Your task to perform on an android device: allow notifications from all sites in the chrome app Image 0: 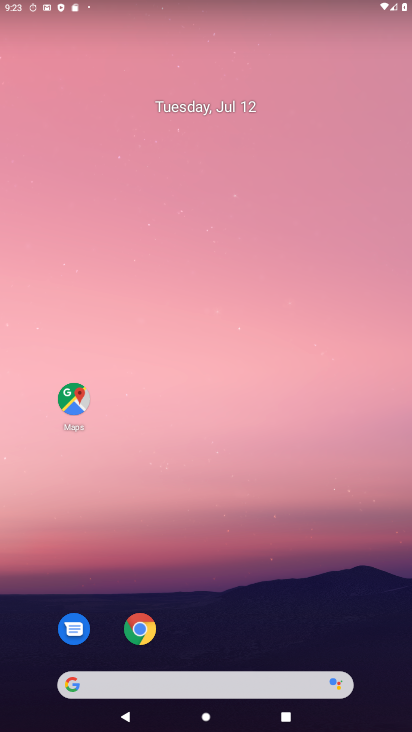
Step 0: drag from (295, 717) to (179, 222)
Your task to perform on an android device: allow notifications from all sites in the chrome app Image 1: 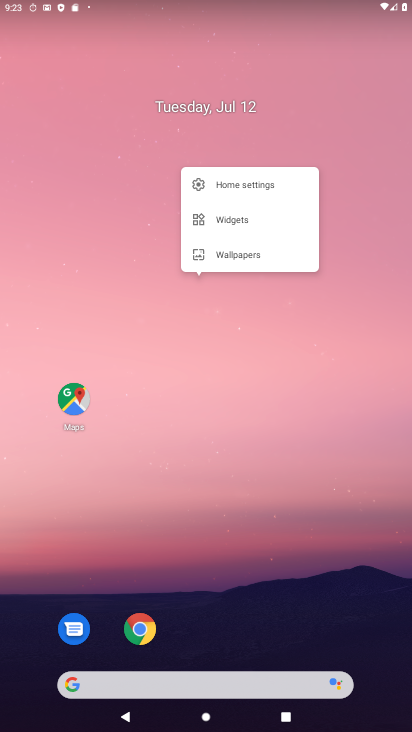
Step 1: drag from (234, 505) to (95, 231)
Your task to perform on an android device: allow notifications from all sites in the chrome app Image 2: 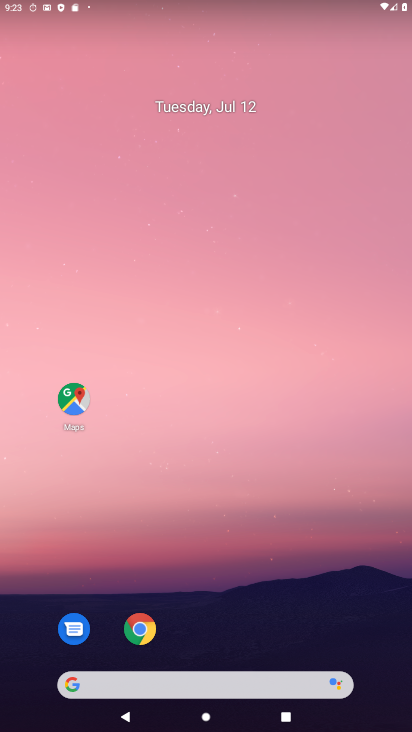
Step 2: click (92, 228)
Your task to perform on an android device: allow notifications from all sites in the chrome app Image 3: 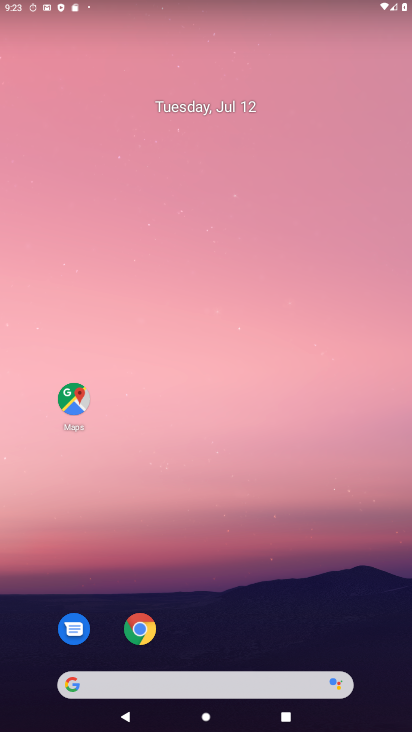
Step 3: drag from (322, 600) to (239, 334)
Your task to perform on an android device: allow notifications from all sites in the chrome app Image 4: 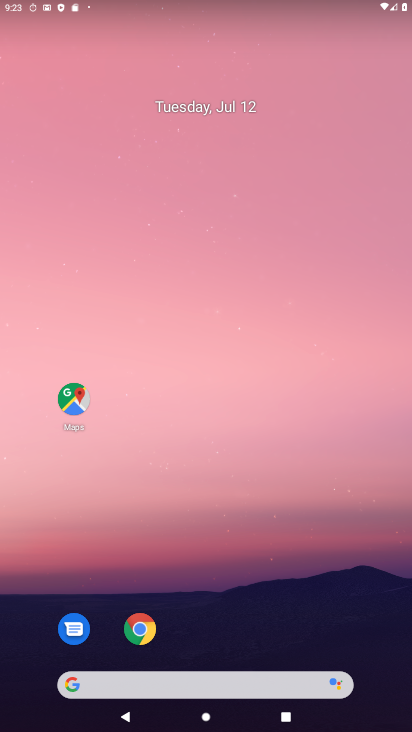
Step 4: drag from (238, 670) to (139, 304)
Your task to perform on an android device: allow notifications from all sites in the chrome app Image 5: 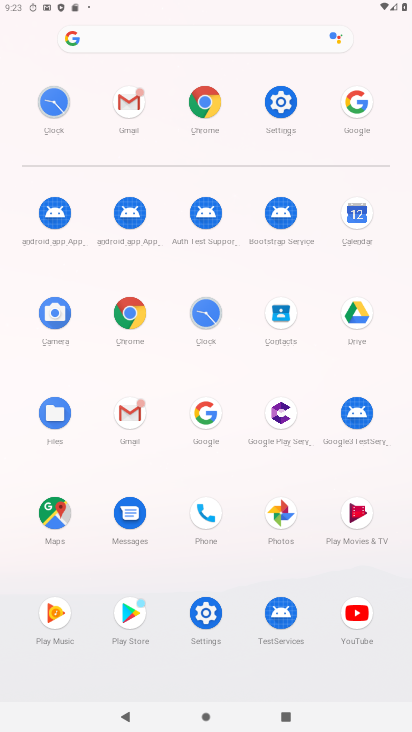
Step 5: click (204, 115)
Your task to perform on an android device: allow notifications from all sites in the chrome app Image 6: 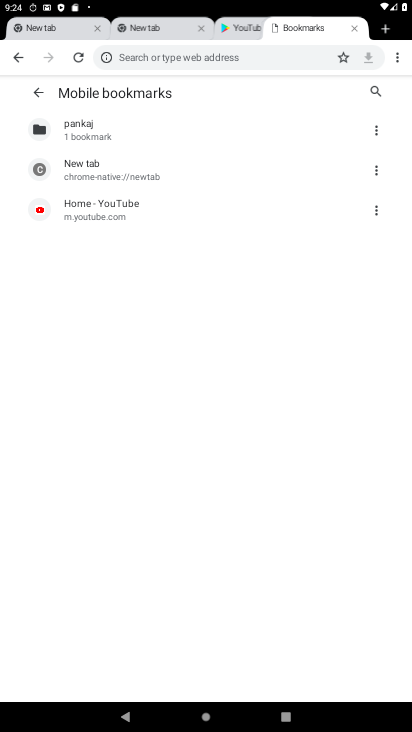
Step 6: drag from (403, 56) to (268, 259)
Your task to perform on an android device: allow notifications from all sites in the chrome app Image 7: 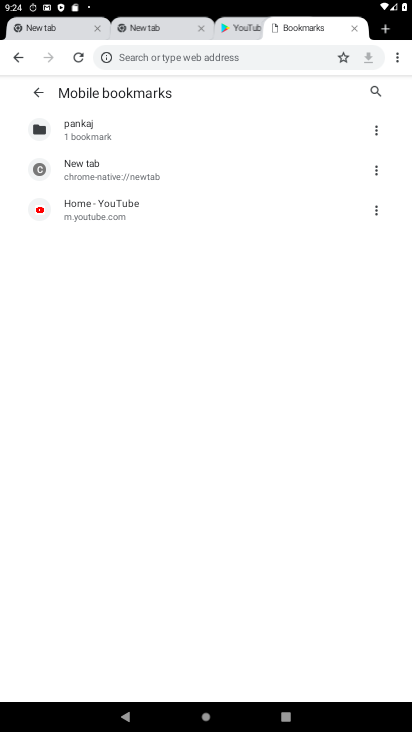
Step 7: click (273, 254)
Your task to perform on an android device: allow notifications from all sites in the chrome app Image 8: 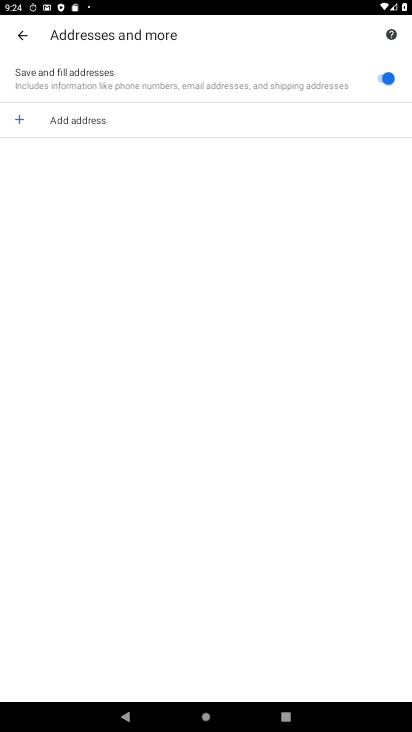
Step 8: click (17, 39)
Your task to perform on an android device: allow notifications from all sites in the chrome app Image 9: 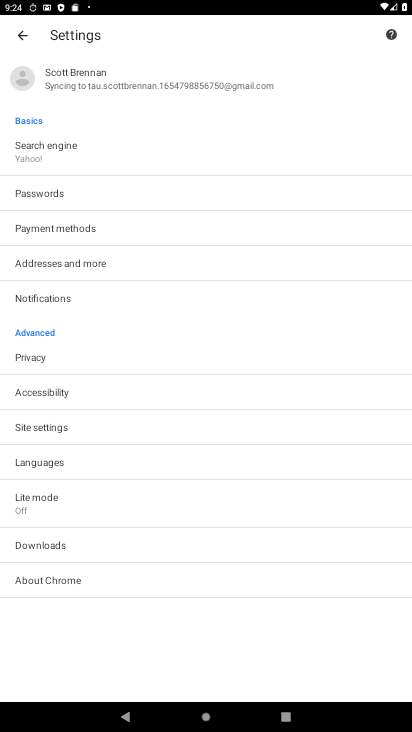
Step 9: click (42, 426)
Your task to perform on an android device: allow notifications from all sites in the chrome app Image 10: 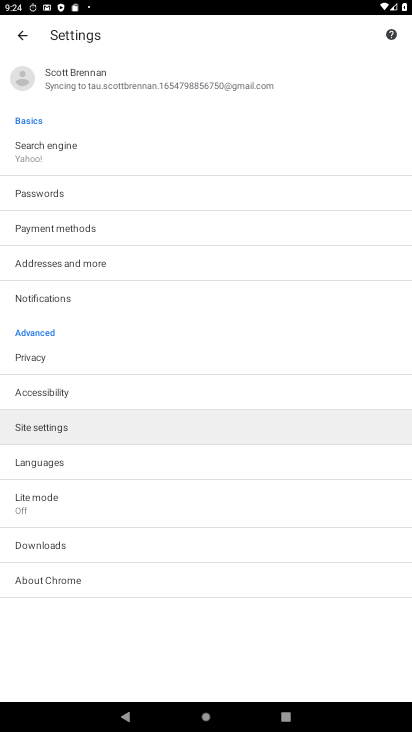
Step 10: click (42, 427)
Your task to perform on an android device: allow notifications from all sites in the chrome app Image 11: 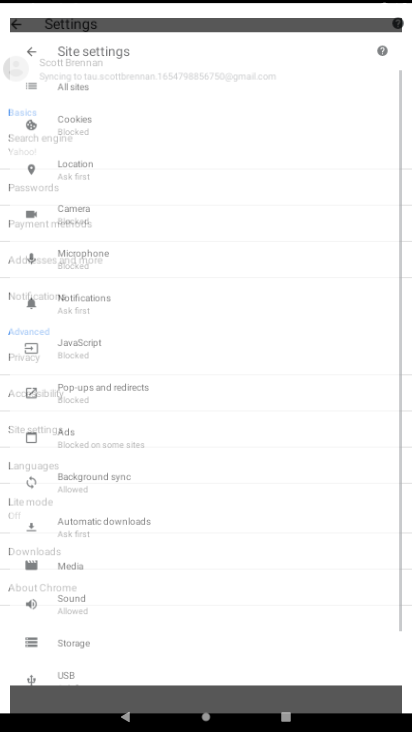
Step 11: click (42, 427)
Your task to perform on an android device: allow notifications from all sites in the chrome app Image 12: 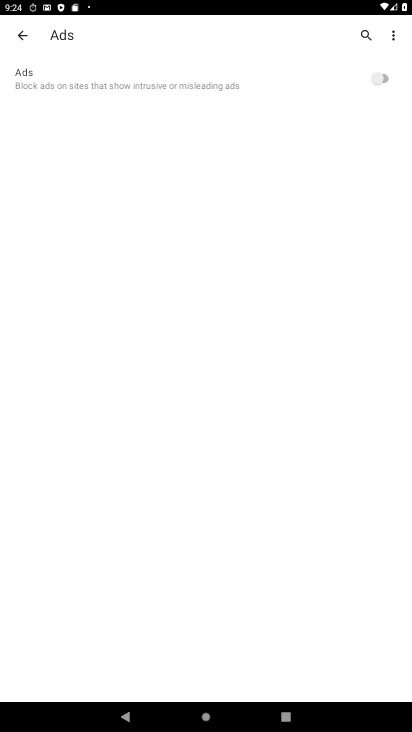
Step 12: click (30, 37)
Your task to perform on an android device: allow notifications from all sites in the chrome app Image 13: 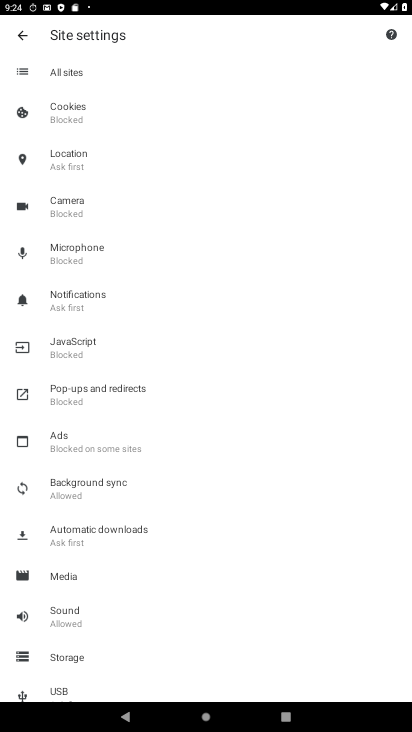
Step 13: click (65, 305)
Your task to perform on an android device: allow notifications from all sites in the chrome app Image 14: 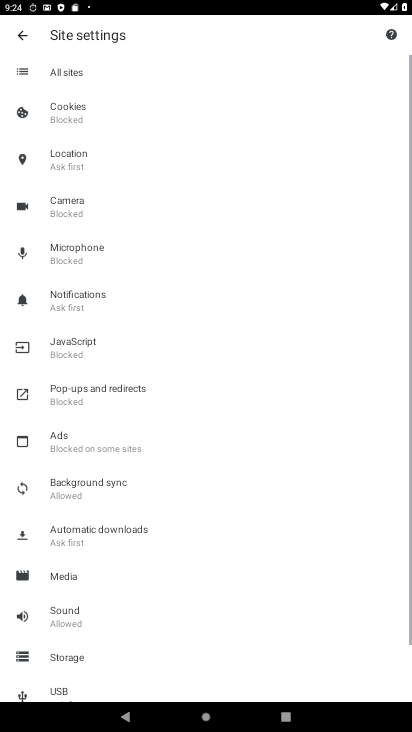
Step 14: click (65, 304)
Your task to perform on an android device: allow notifications from all sites in the chrome app Image 15: 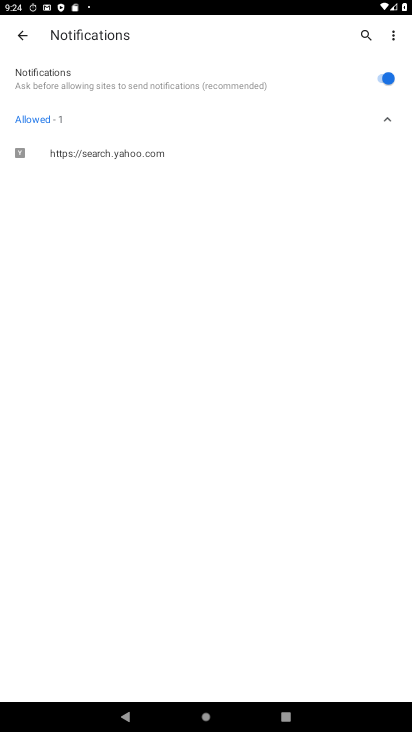
Step 15: task complete